Your task to perform on an android device: toggle sleep mode Image 0: 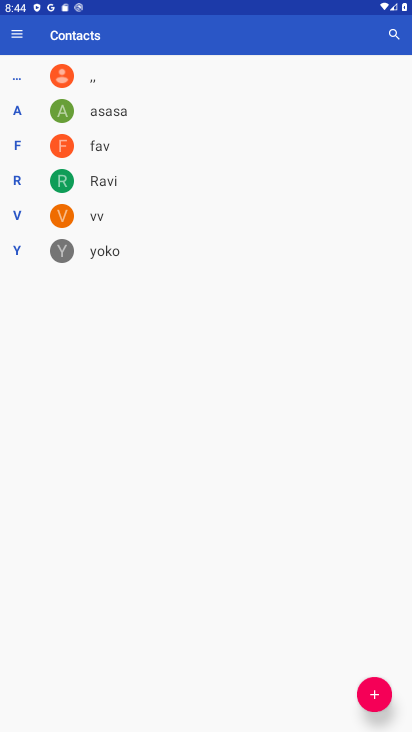
Step 0: press home button
Your task to perform on an android device: toggle sleep mode Image 1: 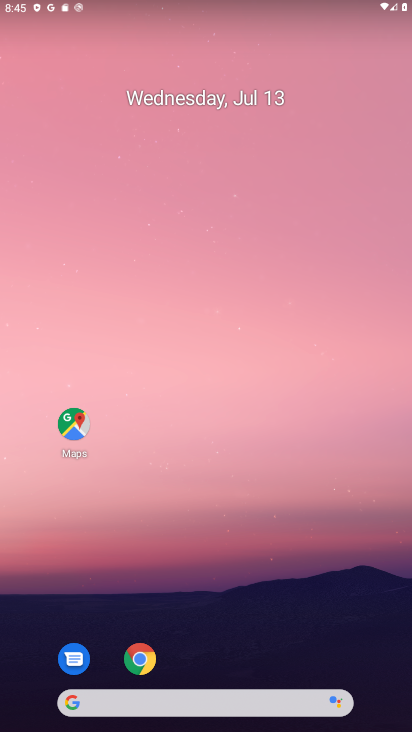
Step 1: drag from (294, 647) to (244, 154)
Your task to perform on an android device: toggle sleep mode Image 2: 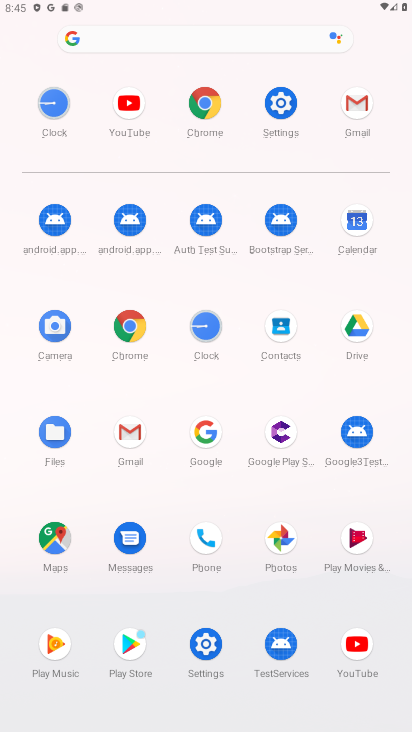
Step 2: click (278, 133)
Your task to perform on an android device: toggle sleep mode Image 3: 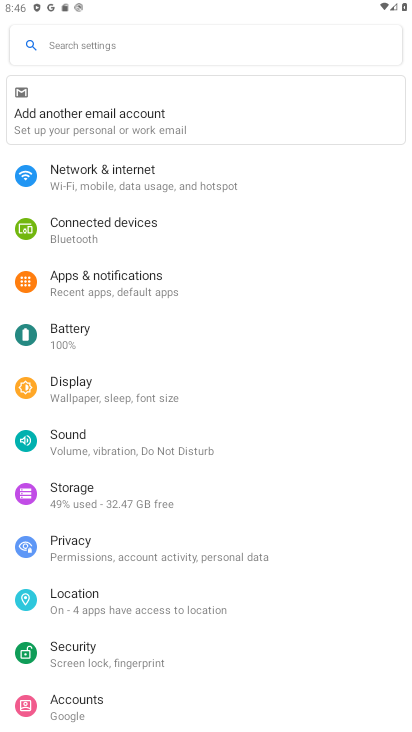
Step 3: click (178, 430)
Your task to perform on an android device: toggle sleep mode Image 4: 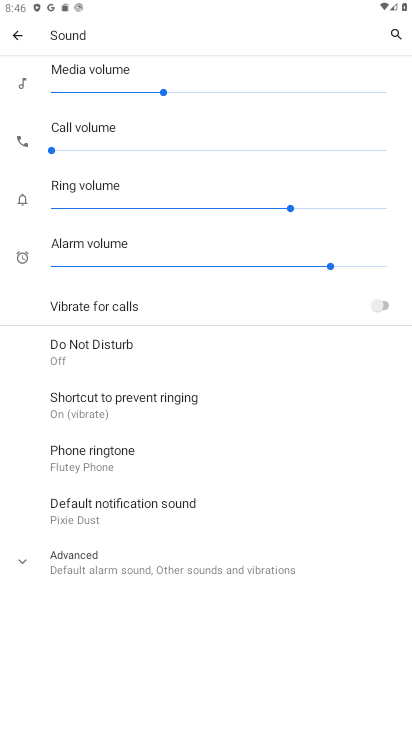
Step 4: task complete